Your task to perform on an android device: Open settings Image 0: 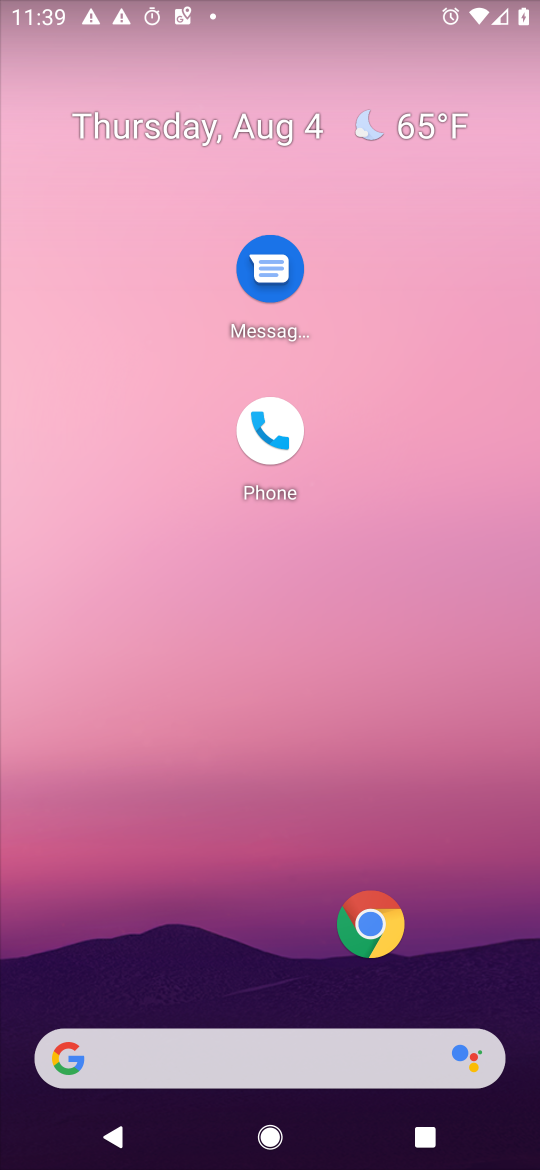
Step 0: drag from (193, 823) to (297, 314)
Your task to perform on an android device: Open settings Image 1: 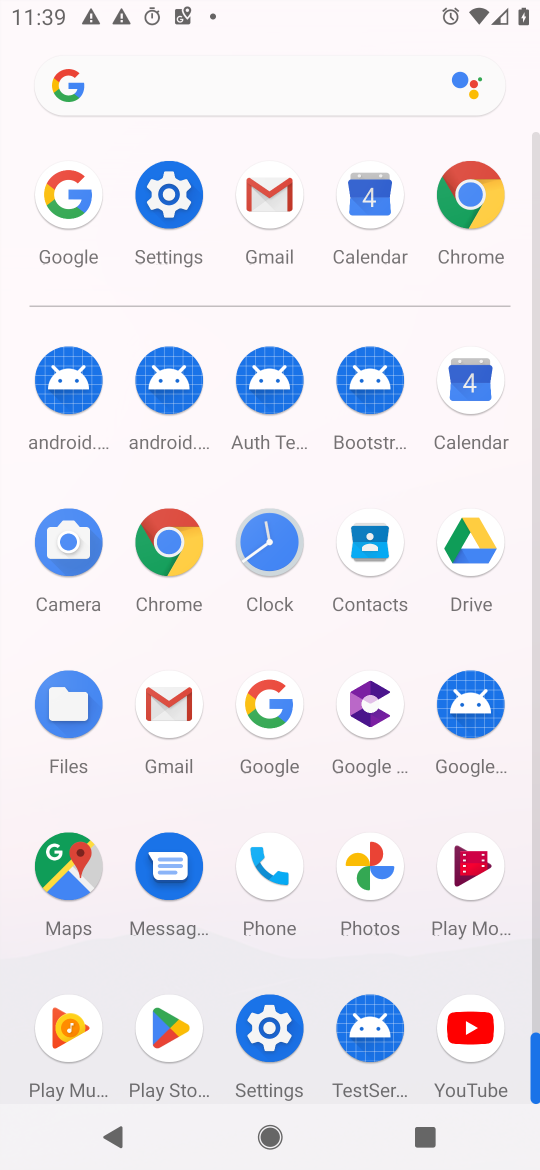
Step 1: click (253, 1039)
Your task to perform on an android device: Open settings Image 2: 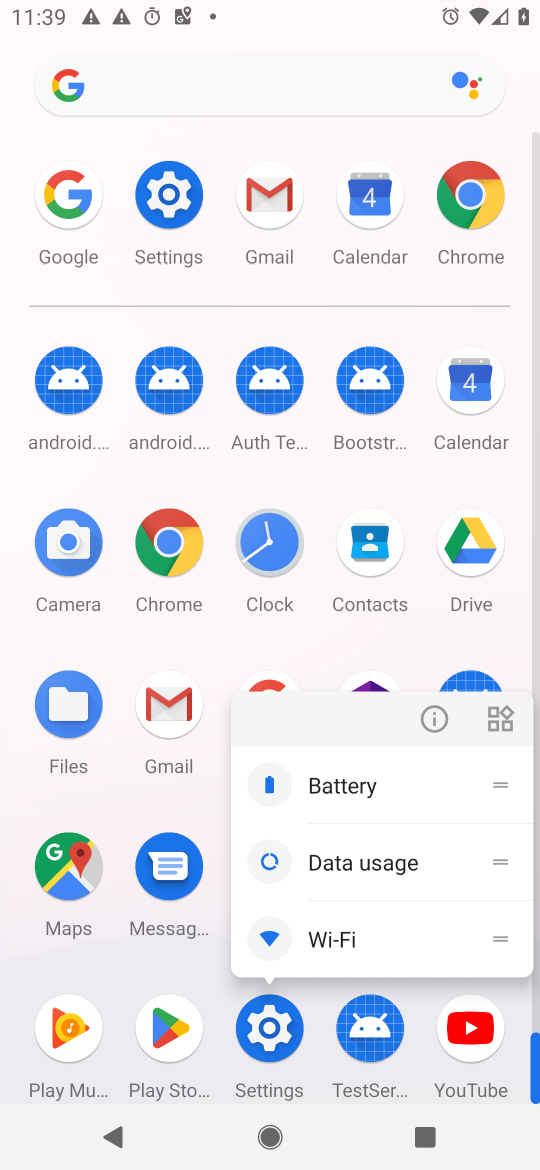
Step 2: click (426, 708)
Your task to perform on an android device: Open settings Image 3: 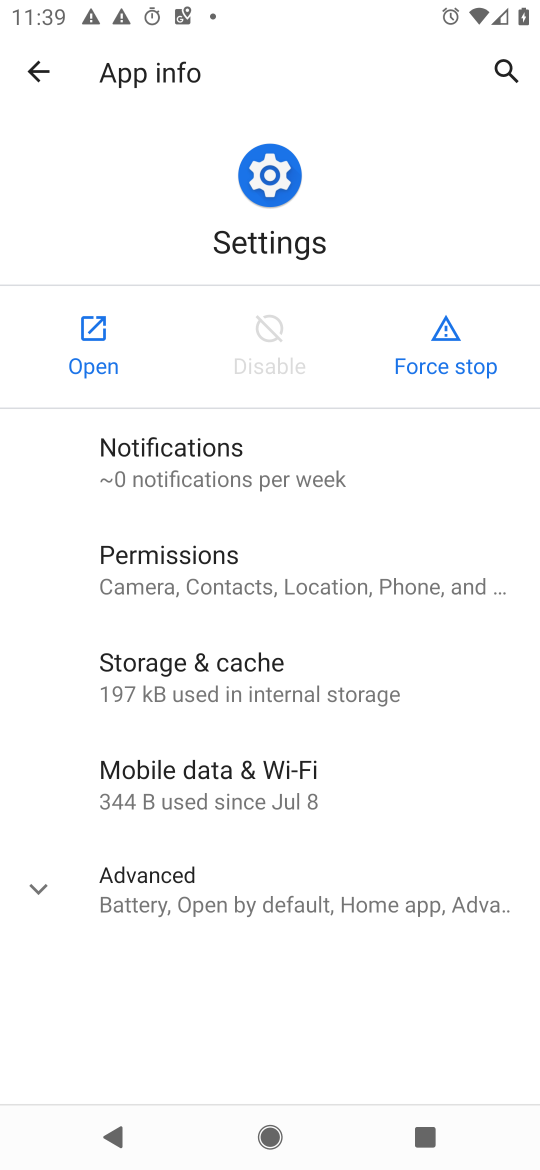
Step 3: click (97, 347)
Your task to perform on an android device: Open settings Image 4: 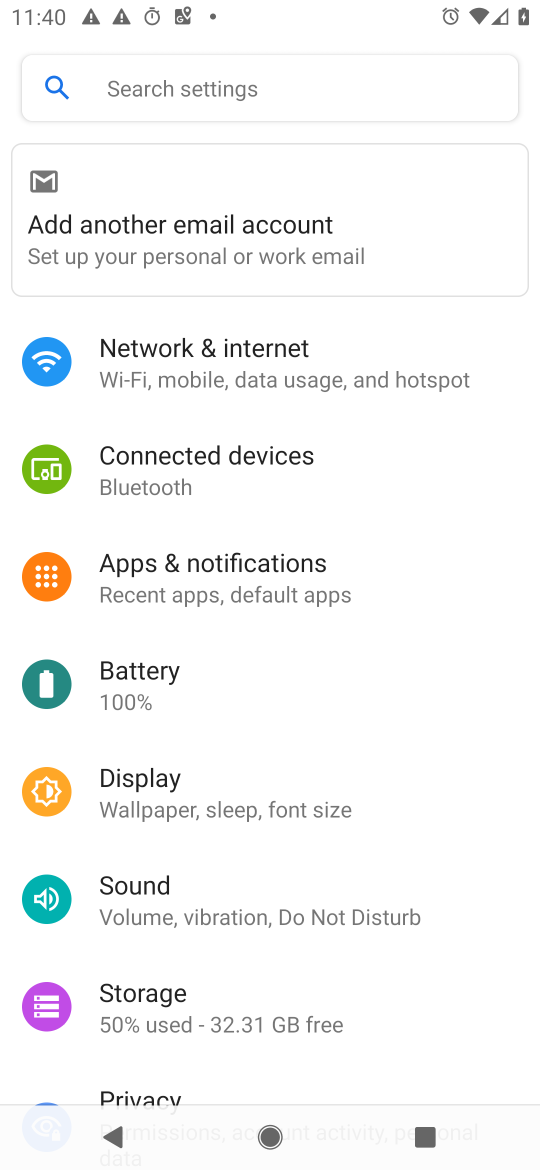
Step 4: task complete